Your task to perform on an android device: Clear the cart on amazon.com. Add "panasonic triple a" to the cart on amazon.com Image 0: 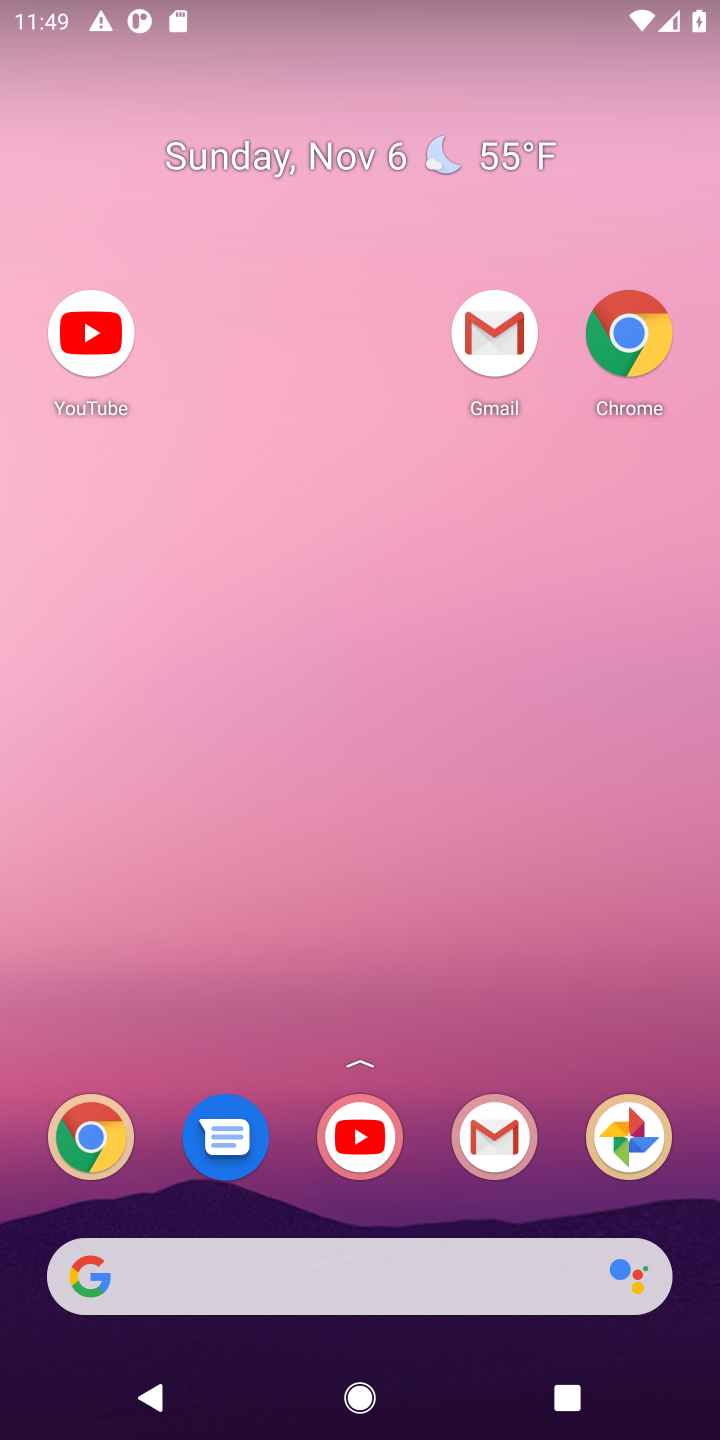
Step 0: drag from (460, 441) to (420, 178)
Your task to perform on an android device: Clear the cart on amazon.com. Add "panasonic triple a" to the cart on amazon.com Image 1: 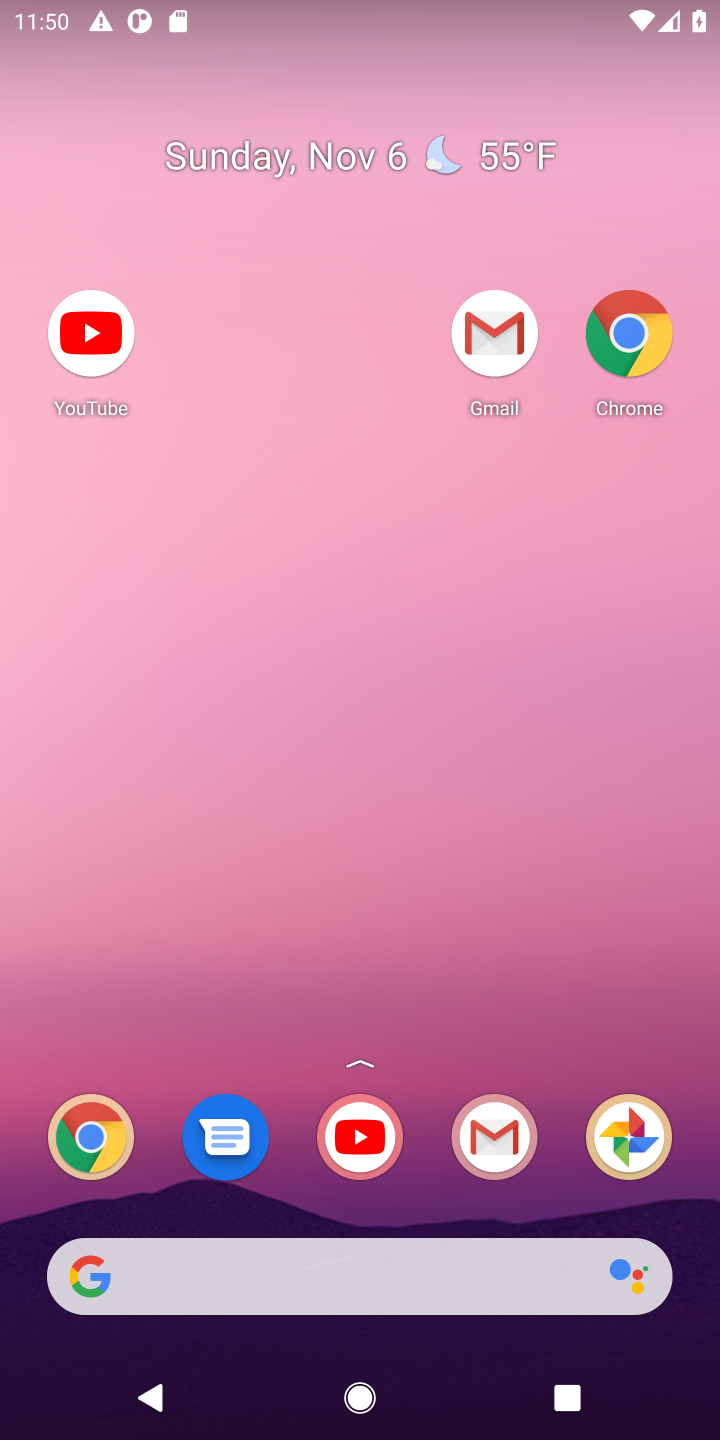
Step 1: drag from (234, 559) to (211, 97)
Your task to perform on an android device: Clear the cart on amazon.com. Add "panasonic triple a" to the cart on amazon.com Image 2: 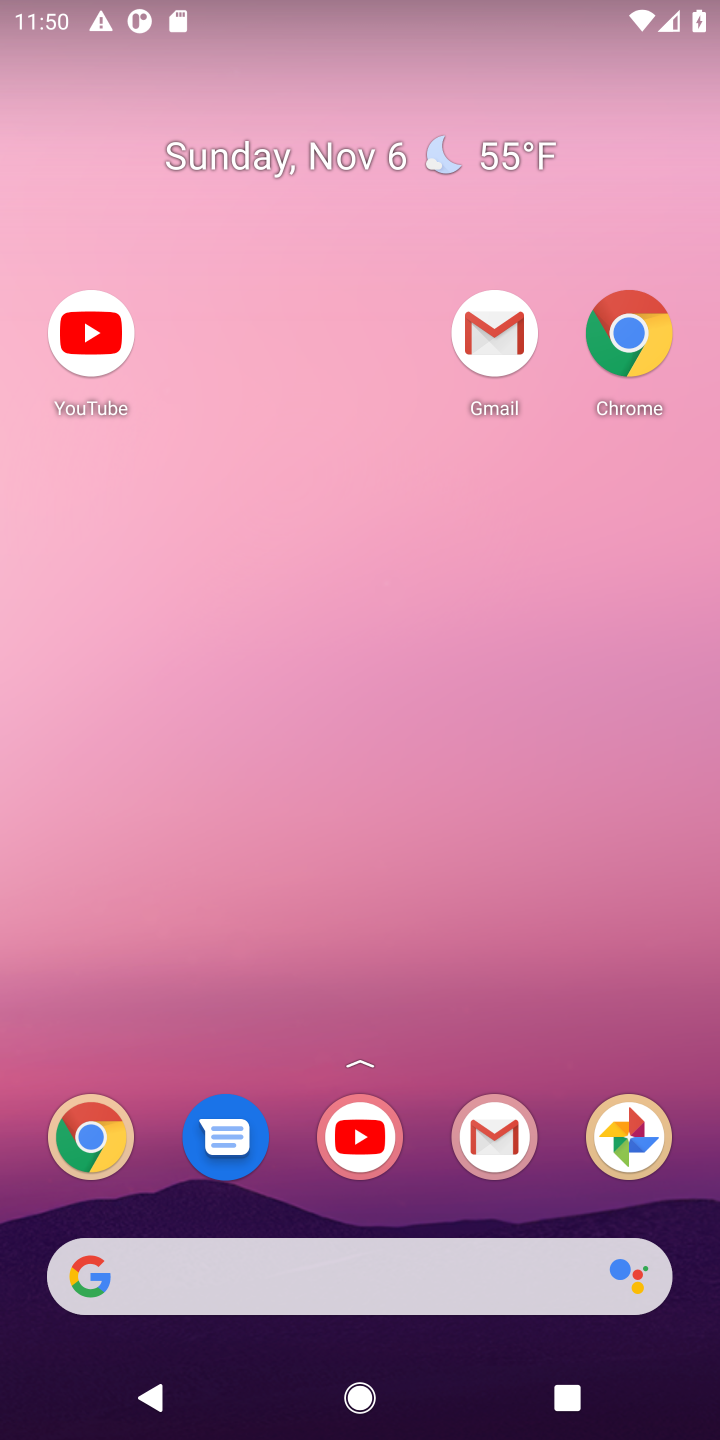
Step 2: drag from (441, 1222) to (380, 160)
Your task to perform on an android device: Clear the cart on amazon.com. Add "panasonic triple a" to the cart on amazon.com Image 3: 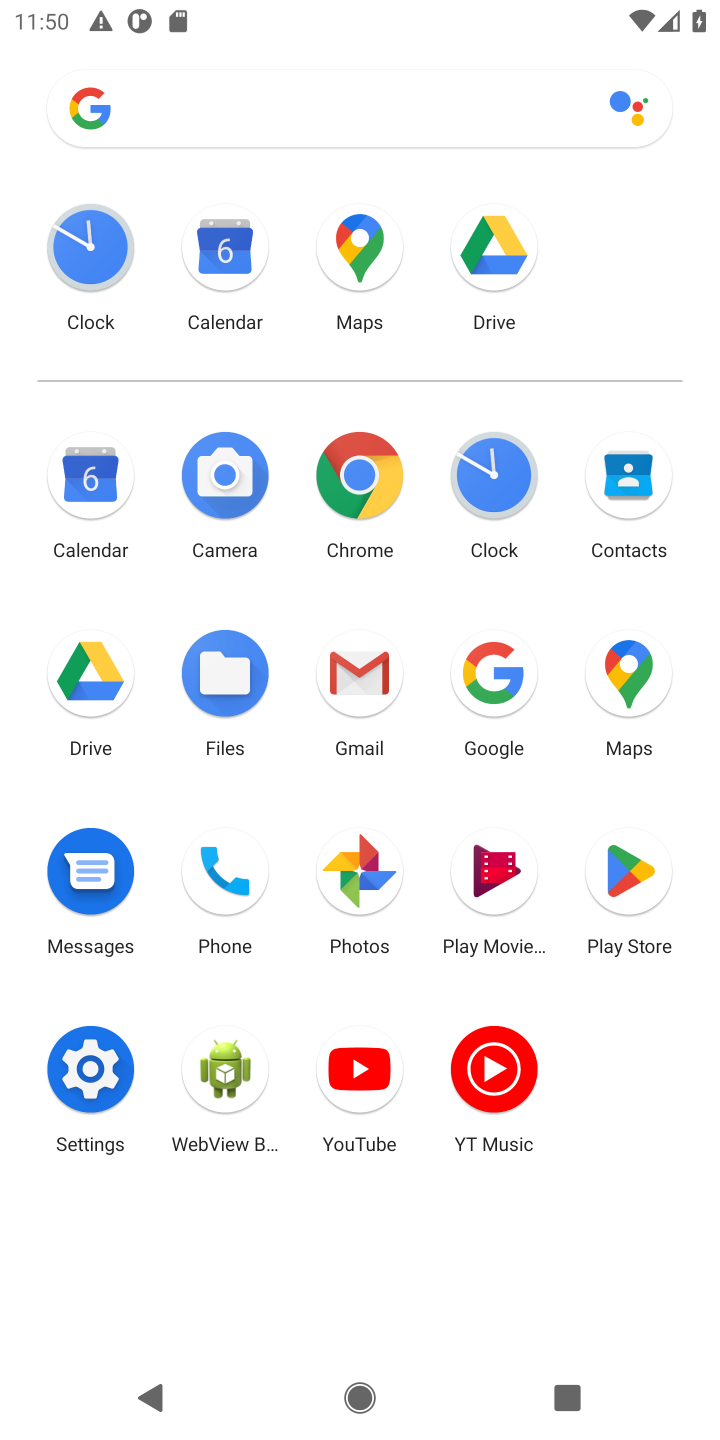
Step 3: click (361, 484)
Your task to perform on an android device: Clear the cart on amazon.com. Add "panasonic triple a" to the cart on amazon.com Image 4: 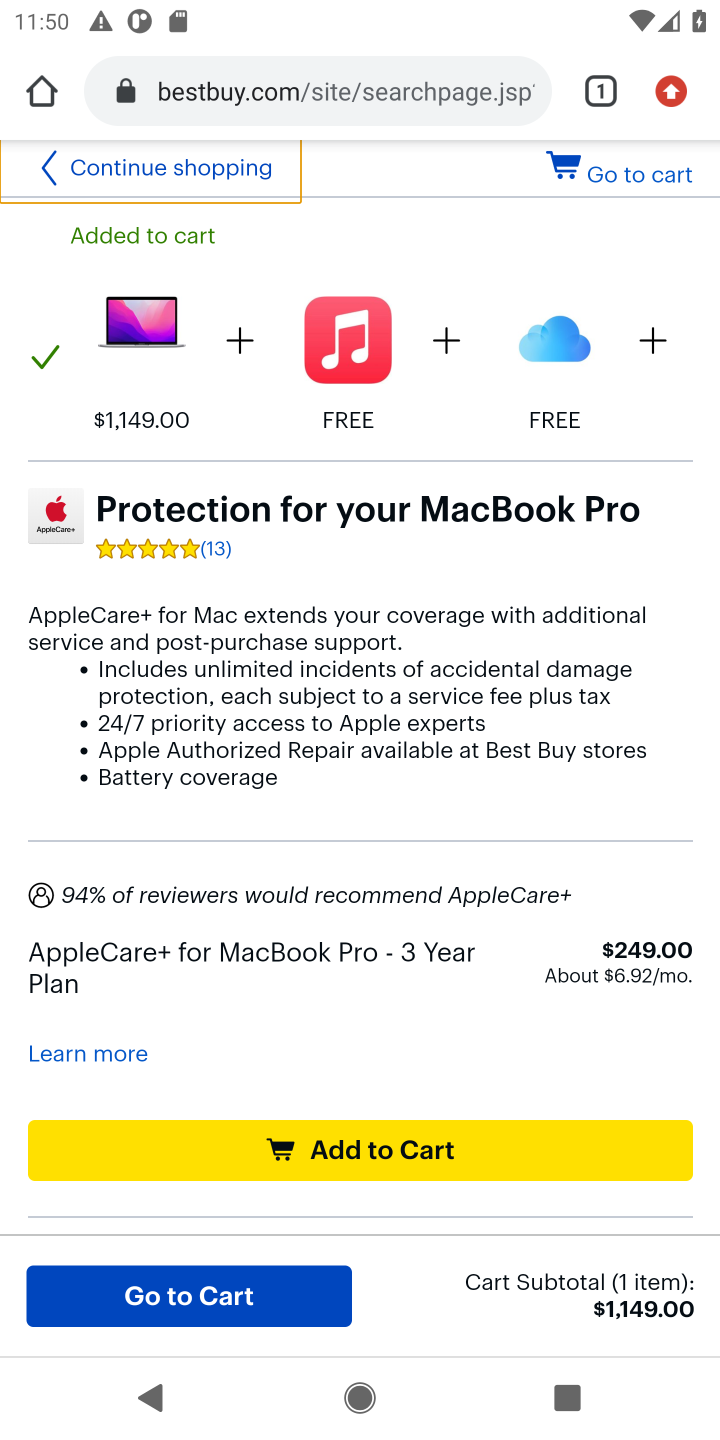
Step 4: click (399, 95)
Your task to perform on an android device: Clear the cart on amazon.com. Add "panasonic triple a" to the cart on amazon.com Image 5: 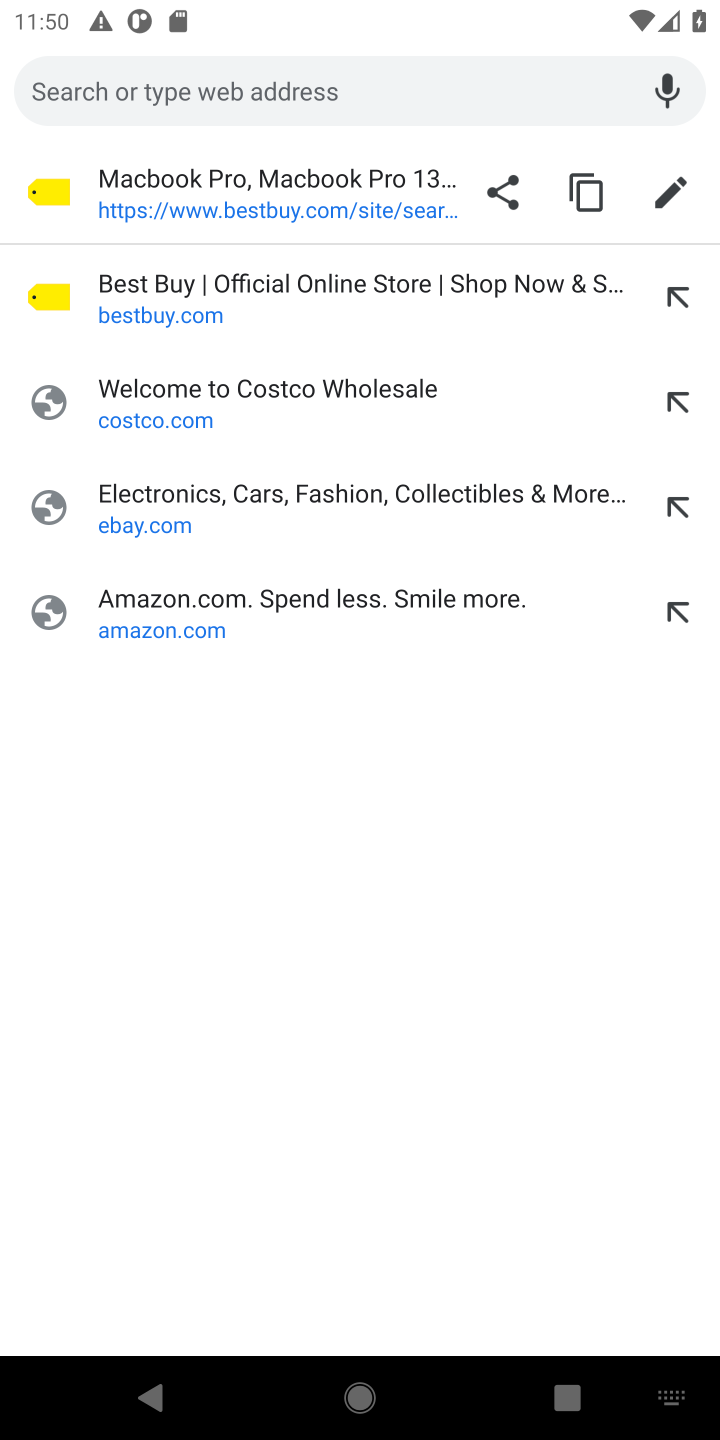
Step 5: type "amazon.com"
Your task to perform on an android device: Clear the cart on amazon.com. Add "panasonic triple a" to the cart on amazon.com Image 6: 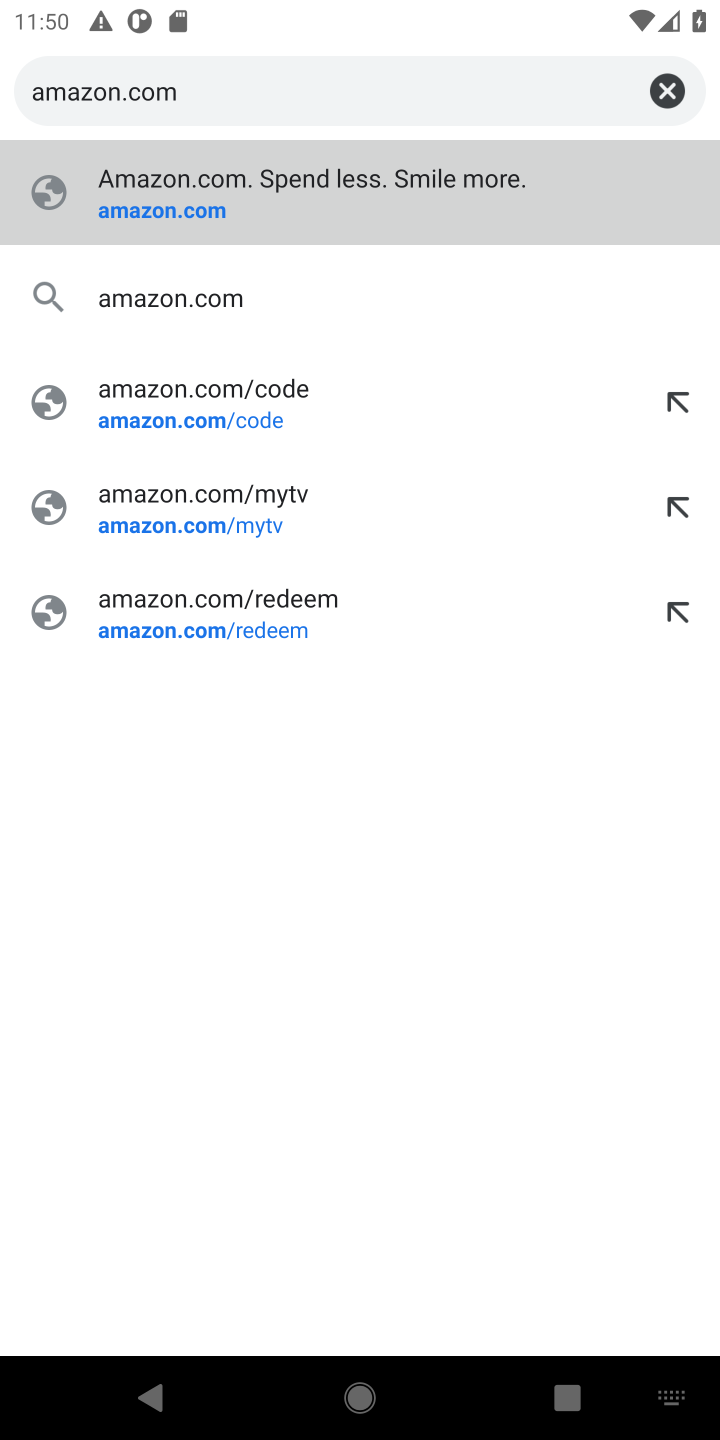
Step 6: press enter
Your task to perform on an android device: Clear the cart on amazon.com. Add "panasonic triple a" to the cart on amazon.com Image 7: 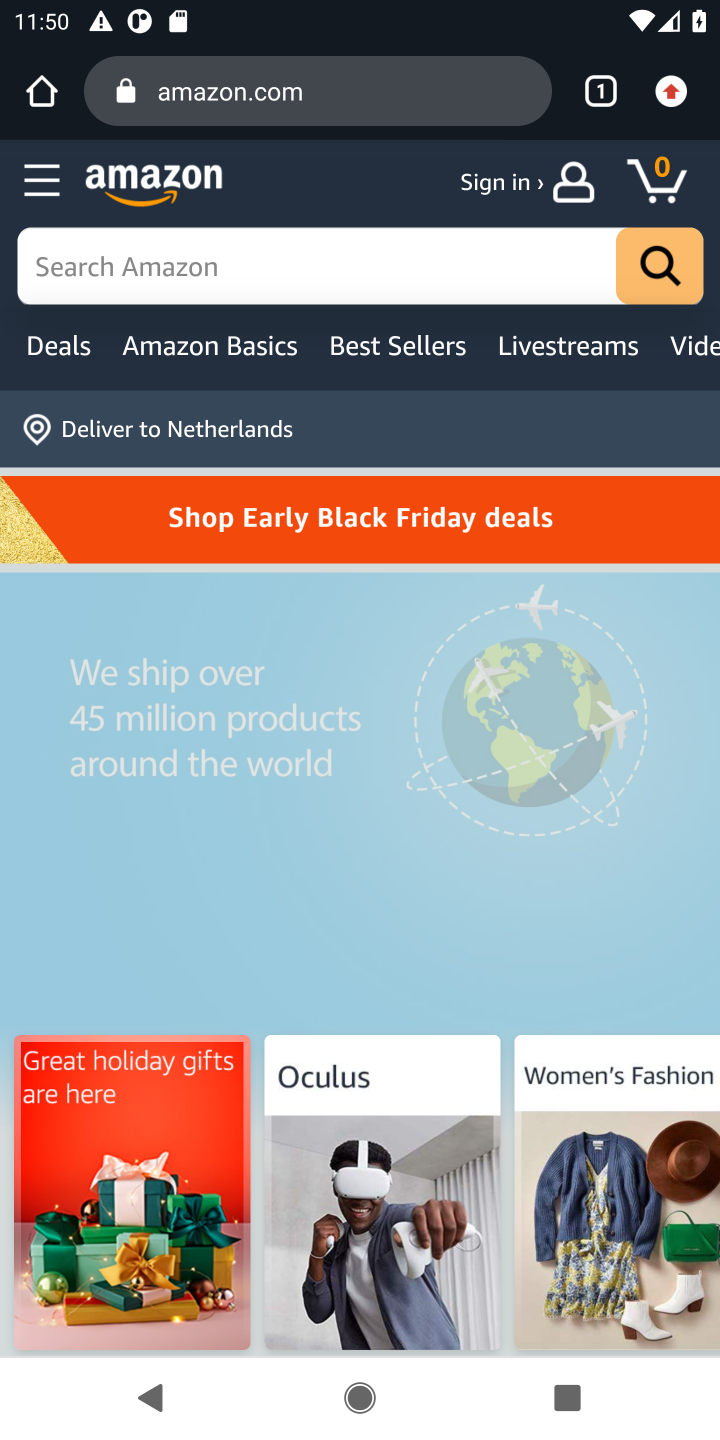
Step 7: click (648, 189)
Your task to perform on an android device: Clear the cart on amazon.com. Add "panasonic triple a" to the cart on amazon.com Image 8: 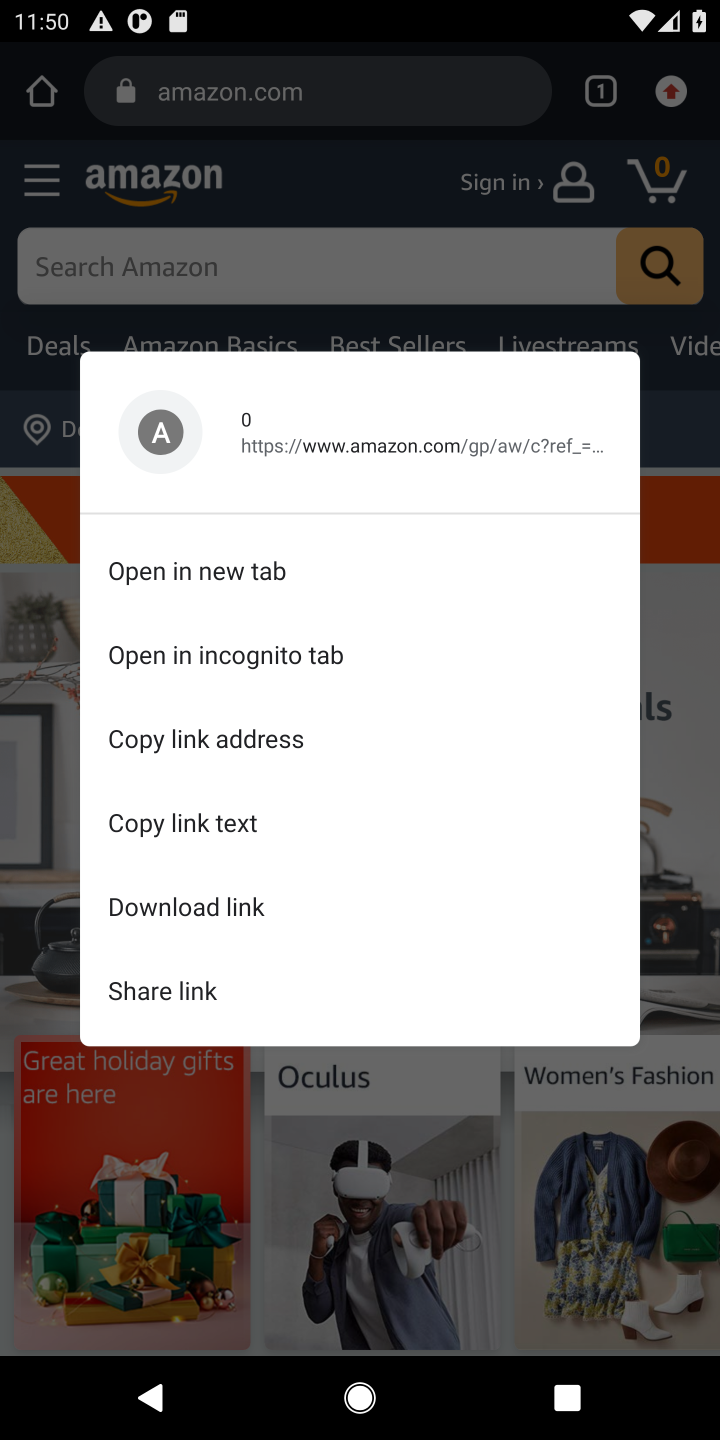
Step 8: click (645, 203)
Your task to perform on an android device: Clear the cart on amazon.com. Add "panasonic triple a" to the cart on amazon.com Image 9: 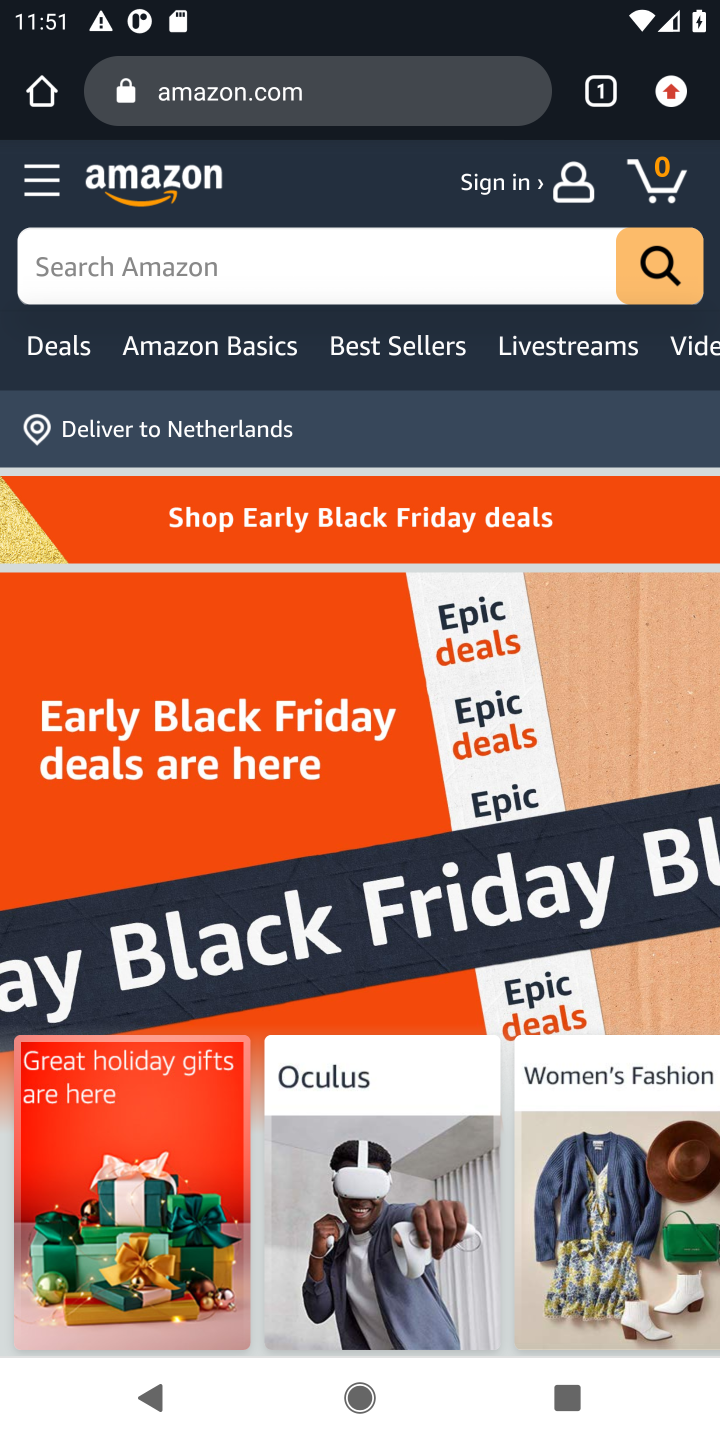
Step 9: click (661, 180)
Your task to perform on an android device: Clear the cart on amazon.com. Add "panasonic triple a" to the cart on amazon.com Image 10: 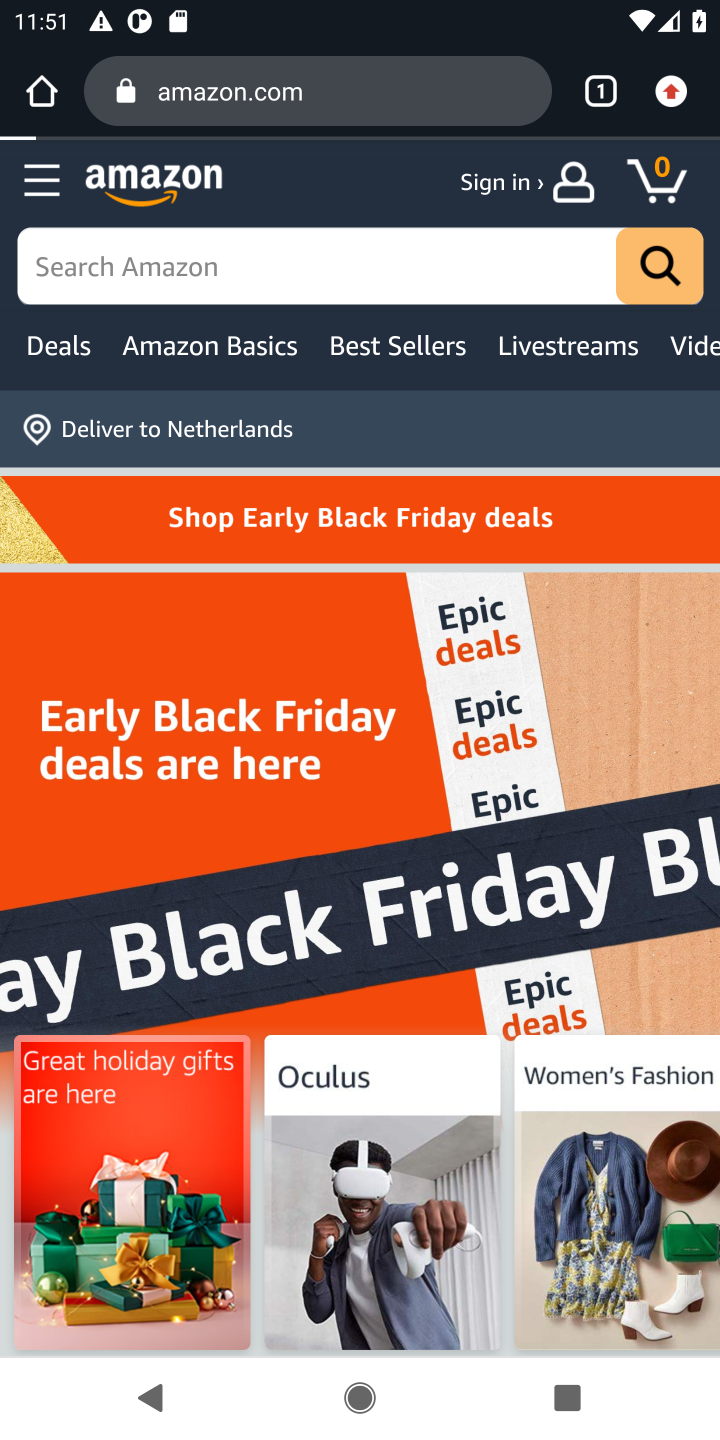
Step 10: click (661, 190)
Your task to perform on an android device: Clear the cart on amazon.com. Add "panasonic triple a" to the cart on amazon.com Image 11: 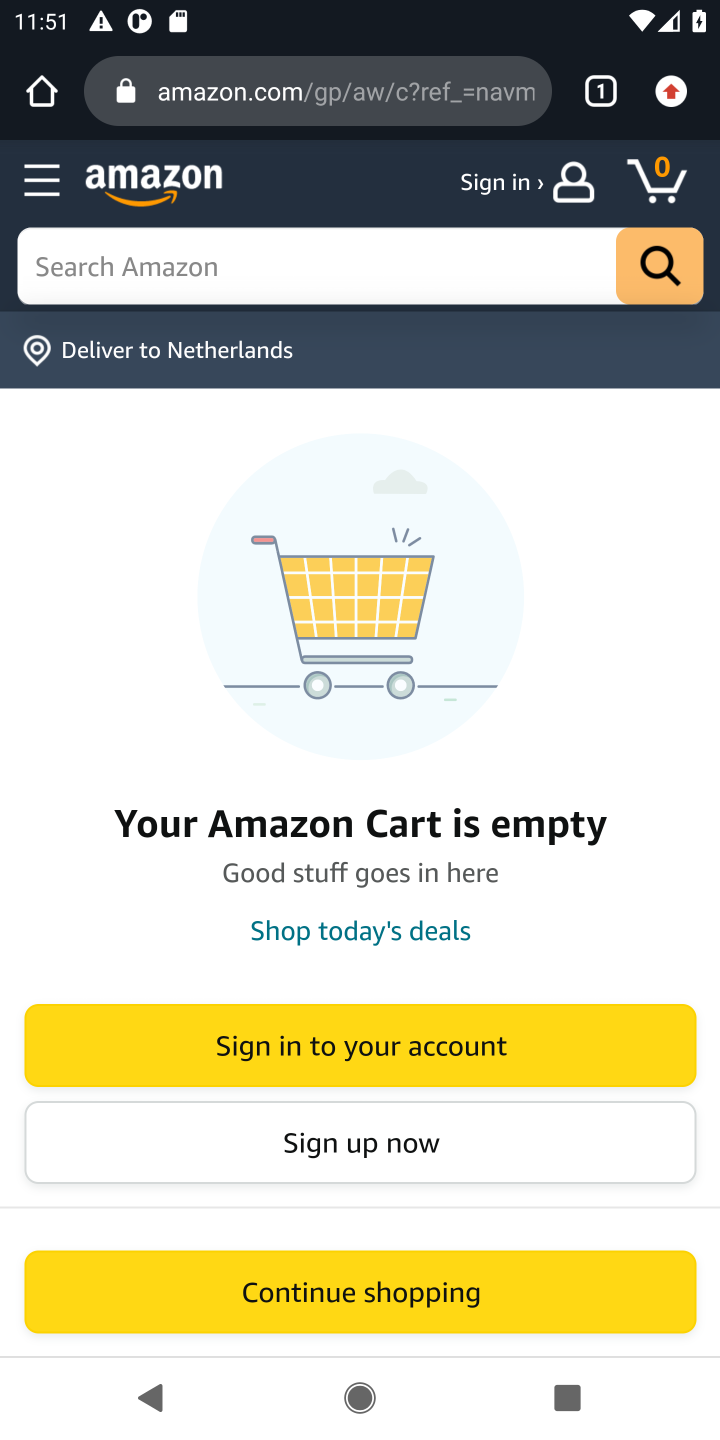
Step 11: click (492, 264)
Your task to perform on an android device: Clear the cart on amazon.com. Add "panasonic triple a" to the cart on amazon.com Image 12: 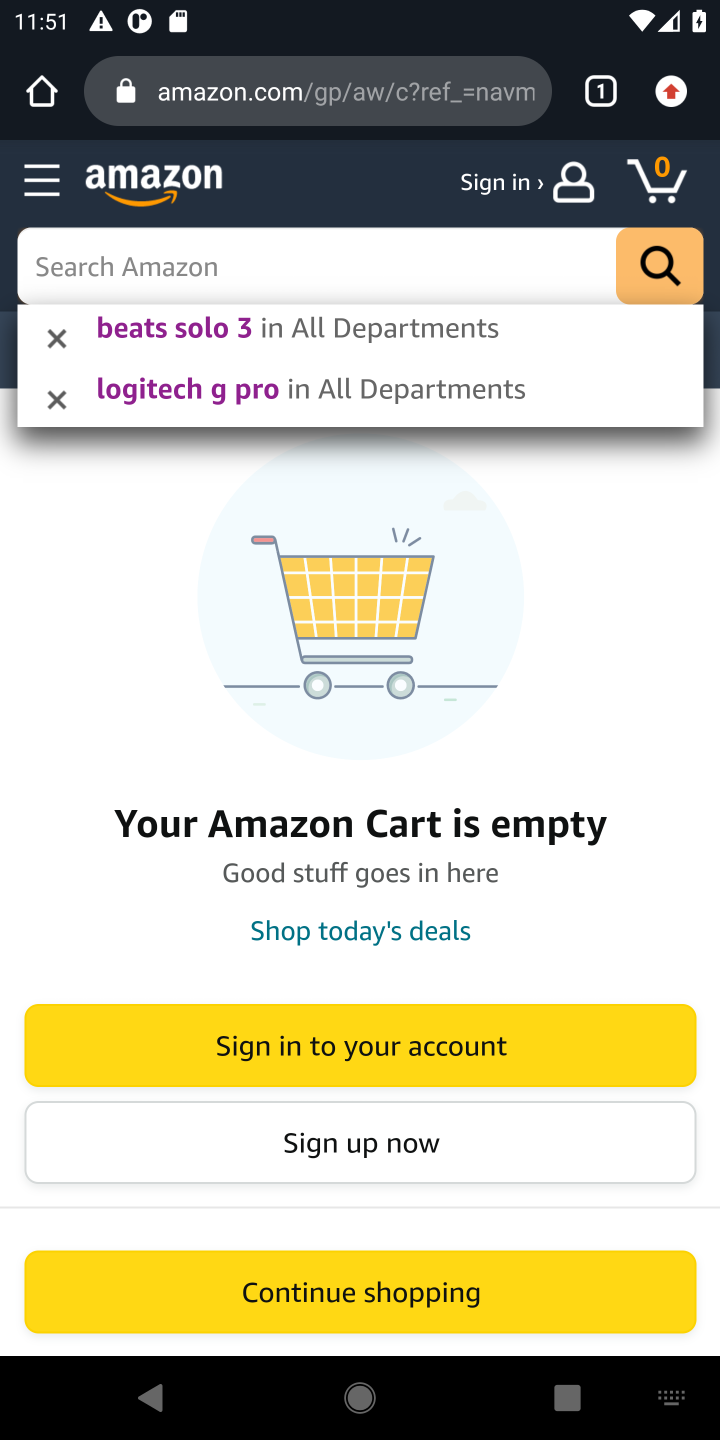
Step 12: type "panasonic triple a"
Your task to perform on an android device: Clear the cart on amazon.com. Add "panasonic triple a" to the cart on amazon.com Image 13: 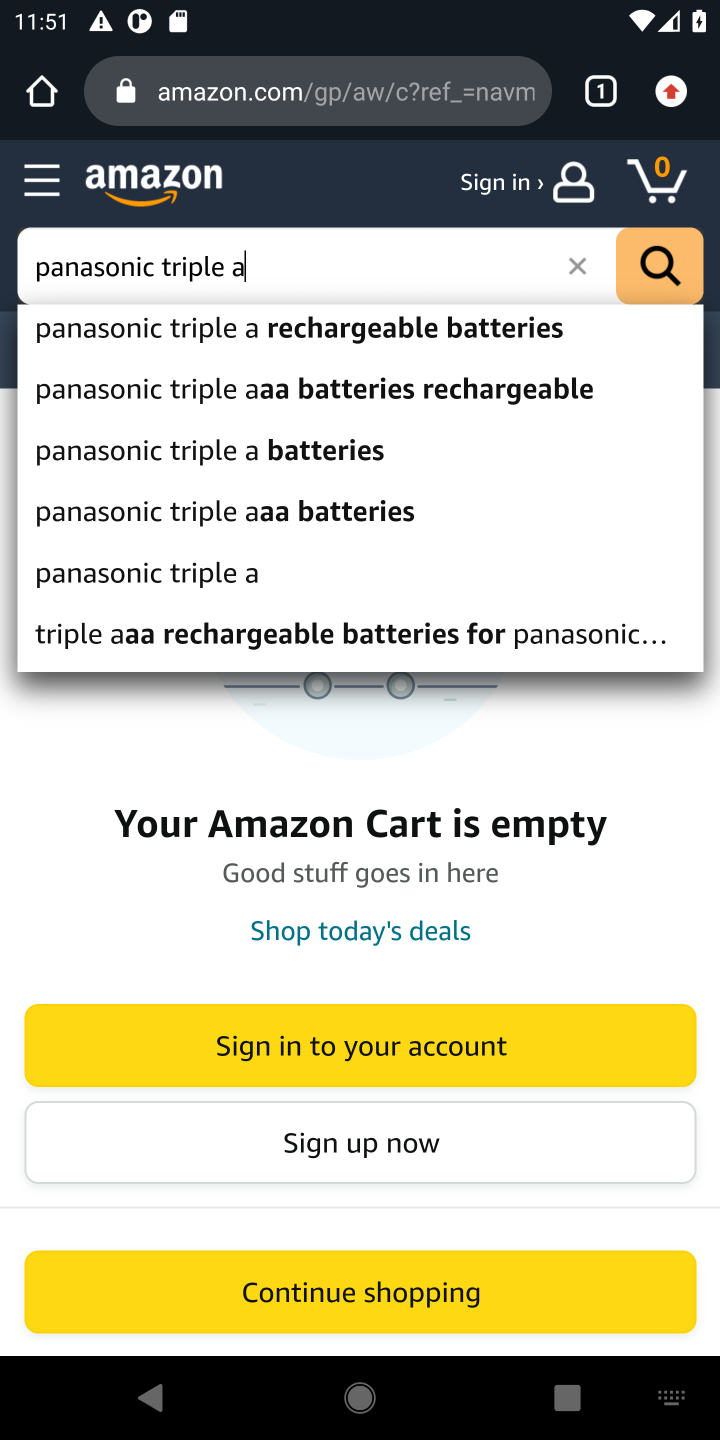
Step 13: press enter
Your task to perform on an android device: Clear the cart on amazon.com. Add "panasonic triple a" to the cart on amazon.com Image 14: 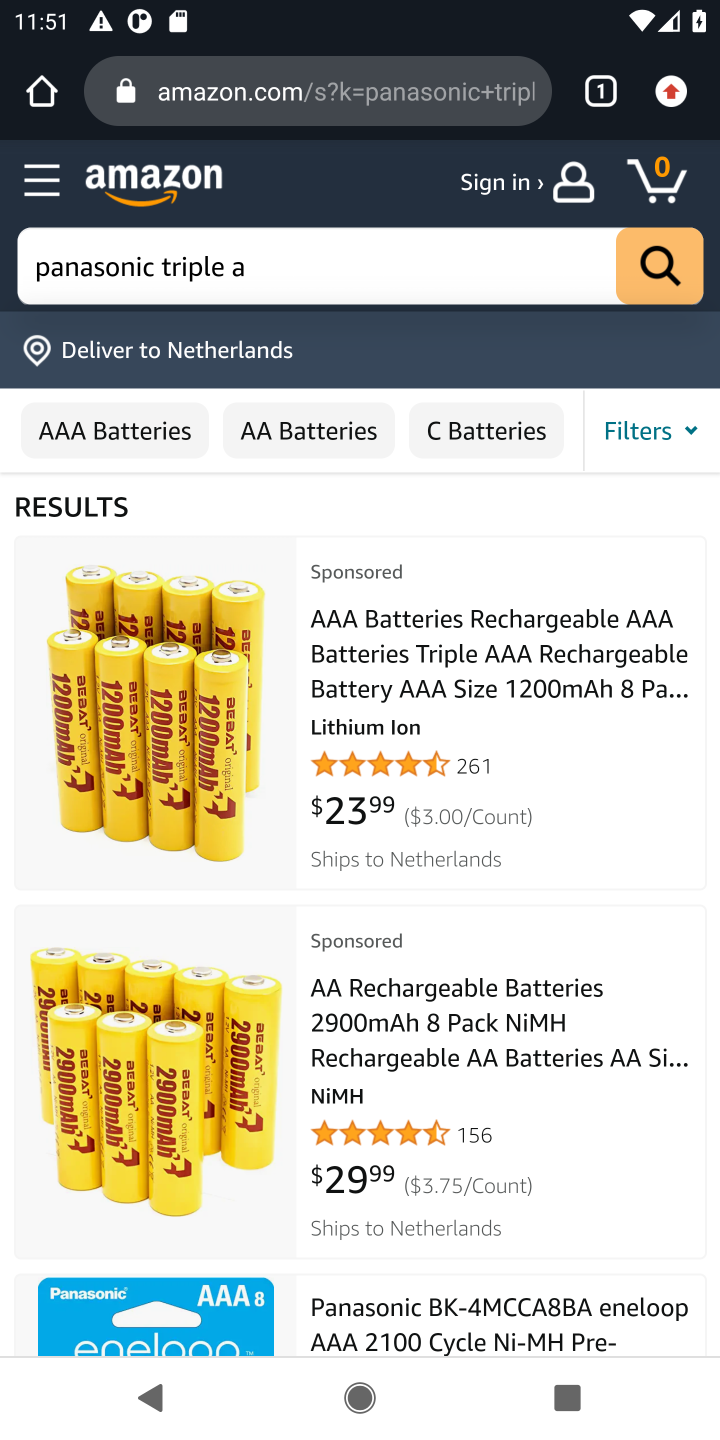
Step 14: drag from (565, 926) to (576, 513)
Your task to perform on an android device: Clear the cart on amazon.com. Add "panasonic triple a" to the cart on amazon.com Image 15: 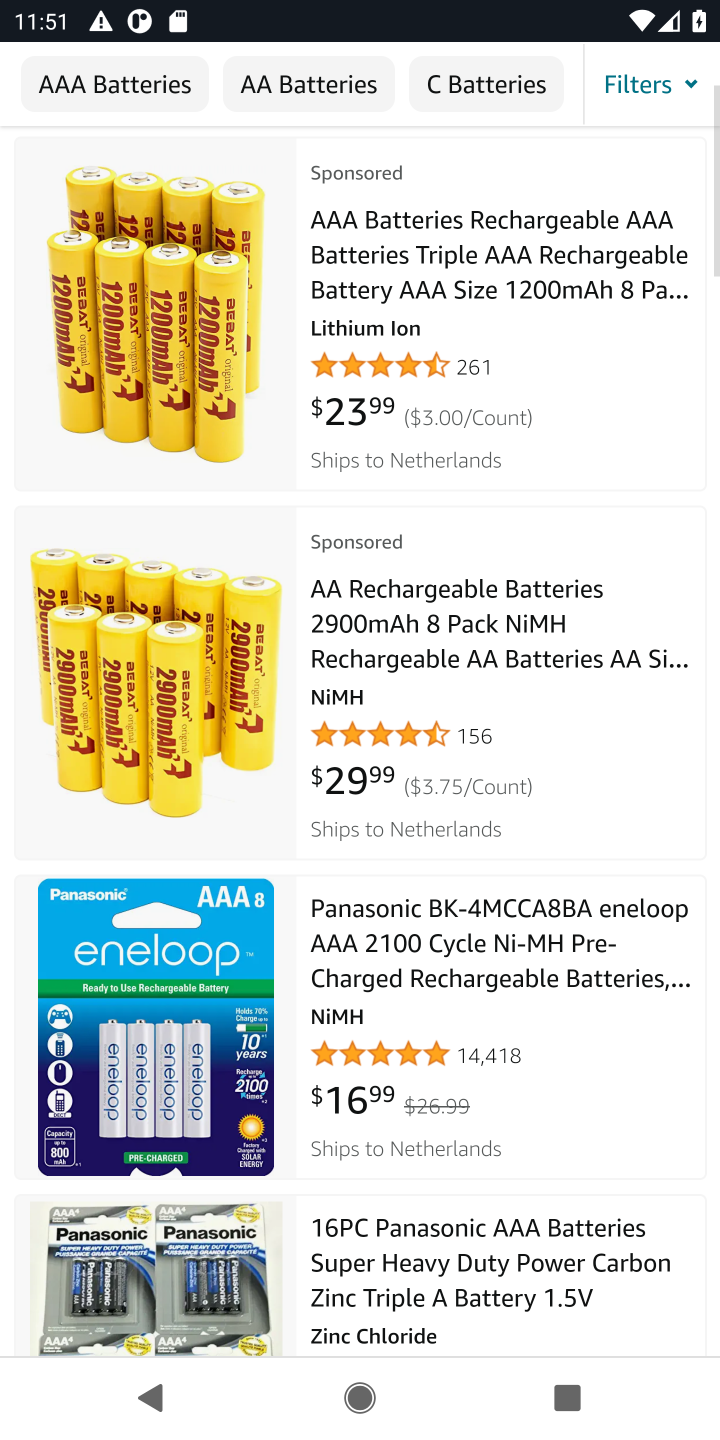
Step 15: click (432, 976)
Your task to perform on an android device: Clear the cart on amazon.com. Add "panasonic triple a" to the cart on amazon.com Image 16: 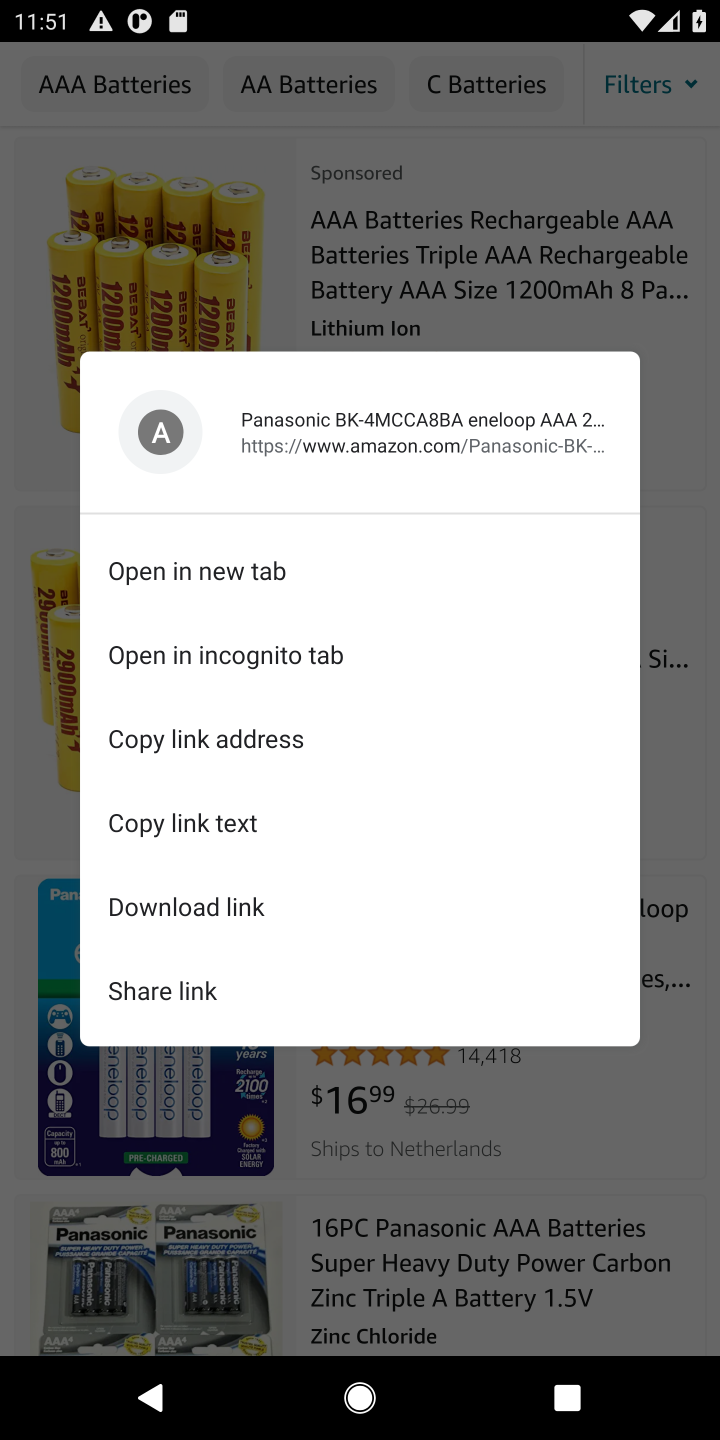
Step 16: click (82, 1075)
Your task to perform on an android device: Clear the cart on amazon.com. Add "panasonic triple a" to the cart on amazon.com Image 17: 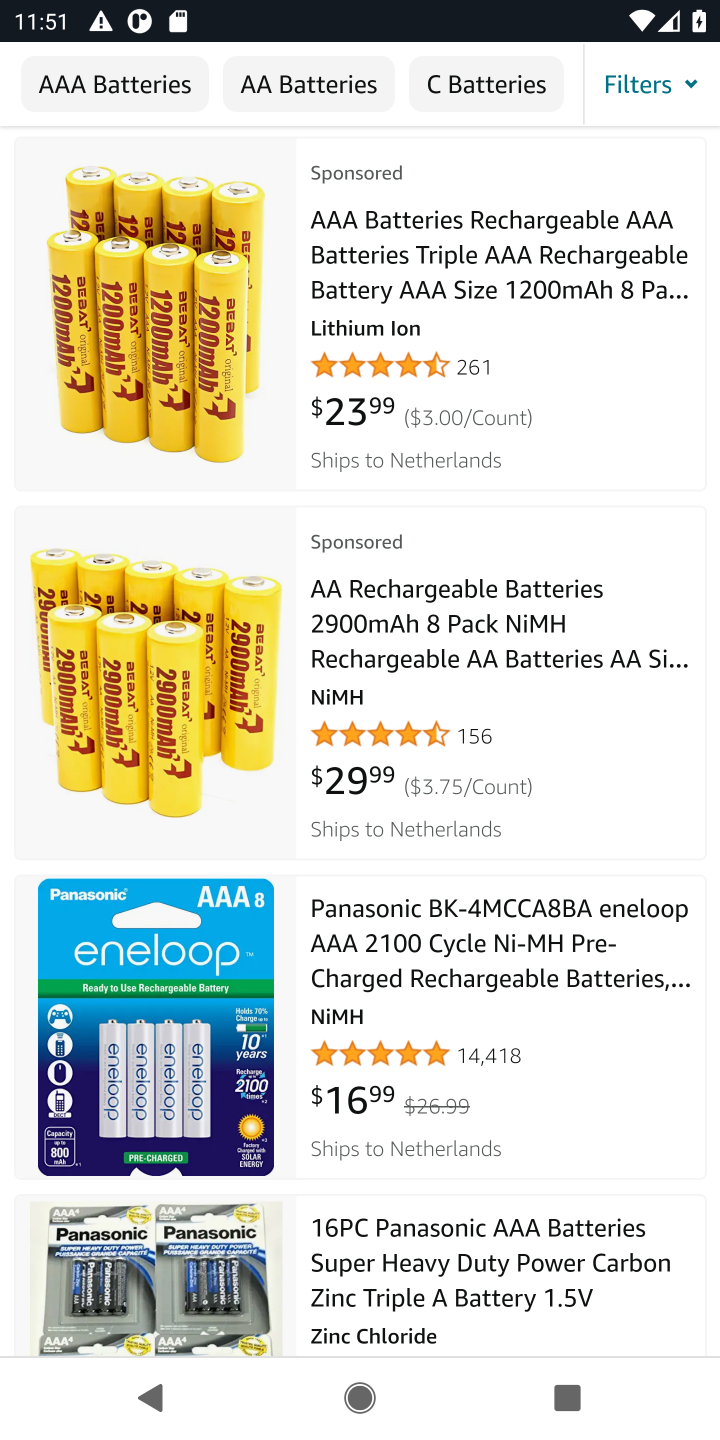
Step 17: click (372, 941)
Your task to perform on an android device: Clear the cart on amazon.com. Add "panasonic triple a" to the cart on amazon.com Image 18: 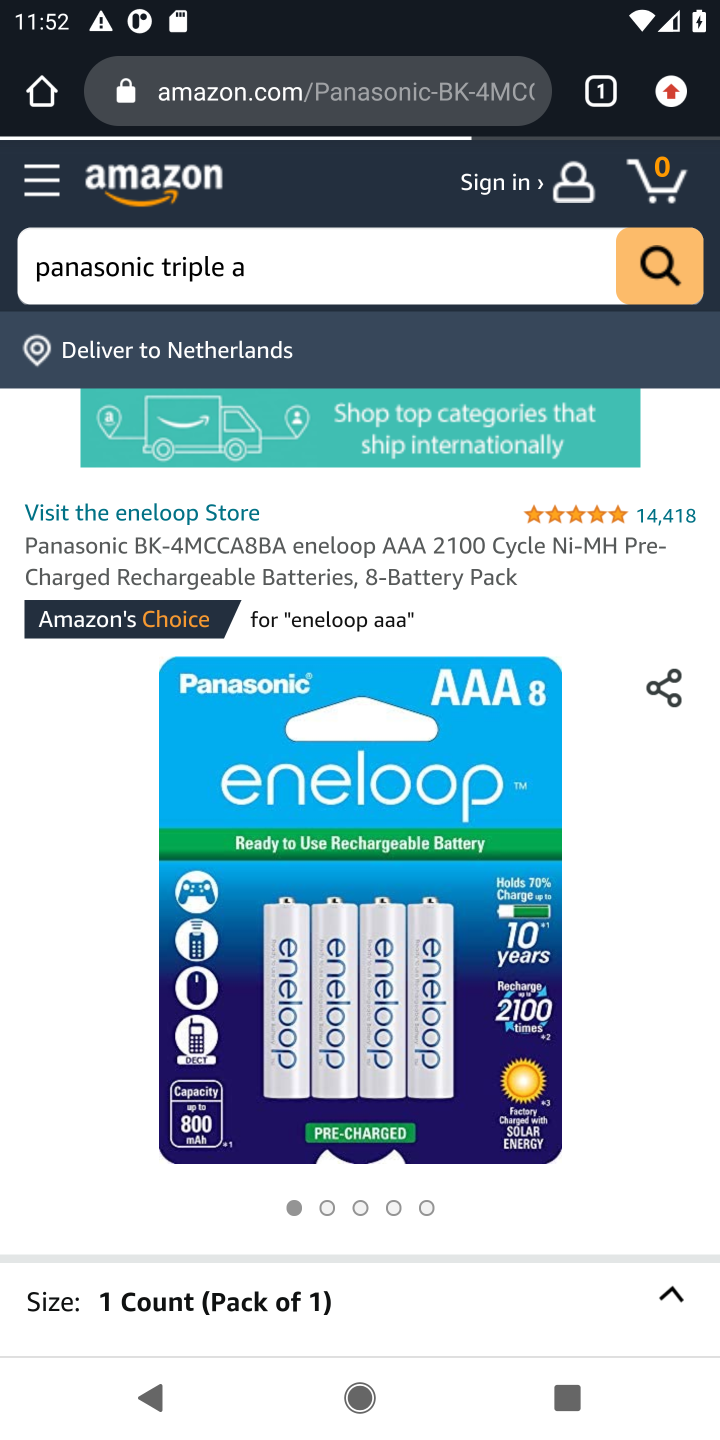
Step 18: drag from (362, 1059) to (340, 406)
Your task to perform on an android device: Clear the cart on amazon.com. Add "panasonic triple a" to the cart on amazon.com Image 19: 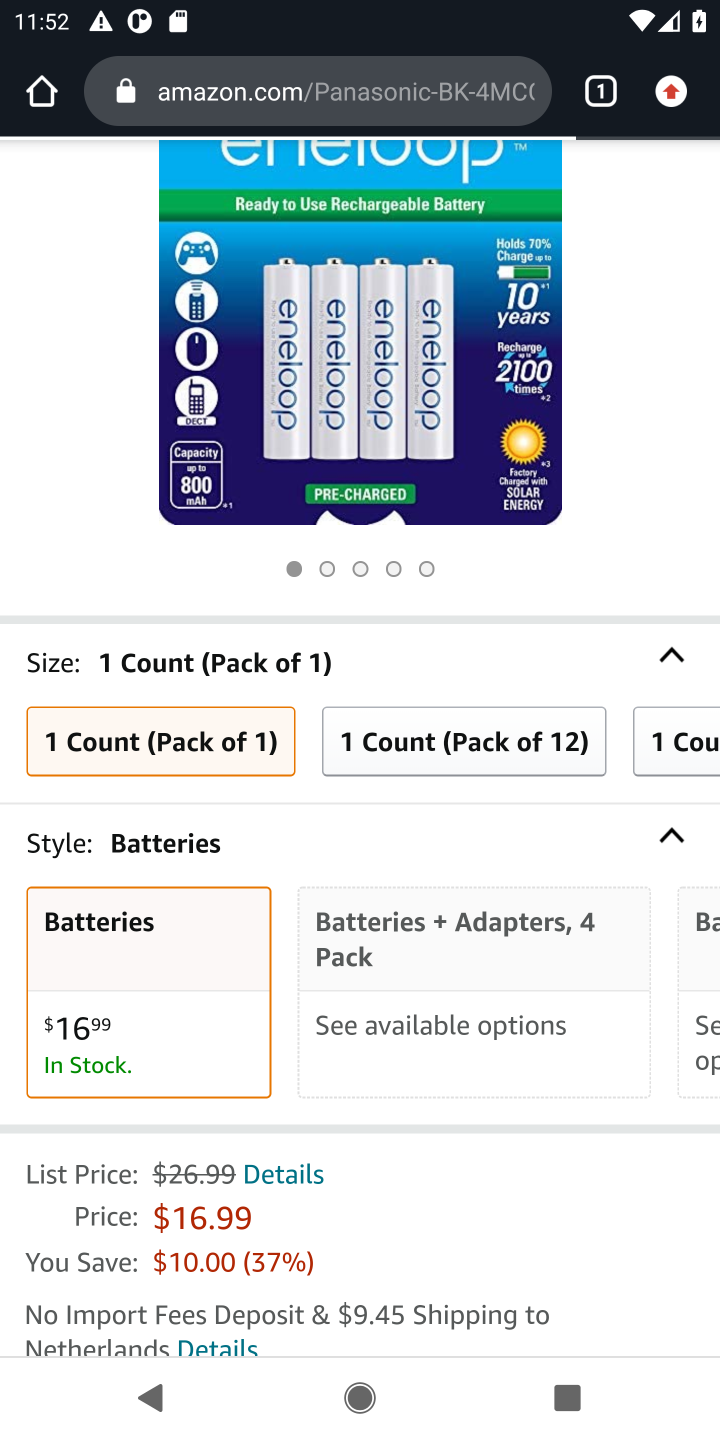
Step 19: drag from (513, 1161) to (414, 159)
Your task to perform on an android device: Clear the cart on amazon.com. Add "panasonic triple a" to the cart on amazon.com Image 20: 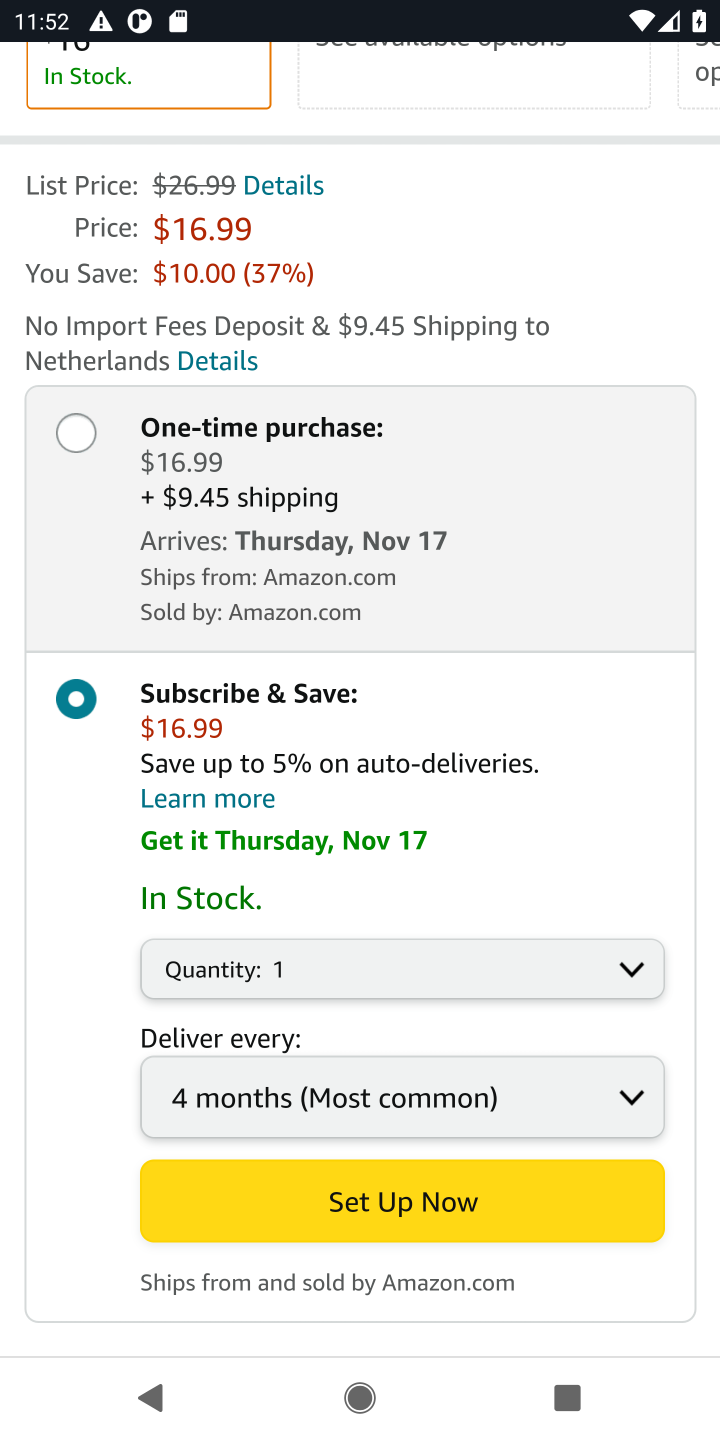
Step 20: click (210, 421)
Your task to perform on an android device: Clear the cart on amazon.com. Add "panasonic triple a" to the cart on amazon.com Image 21: 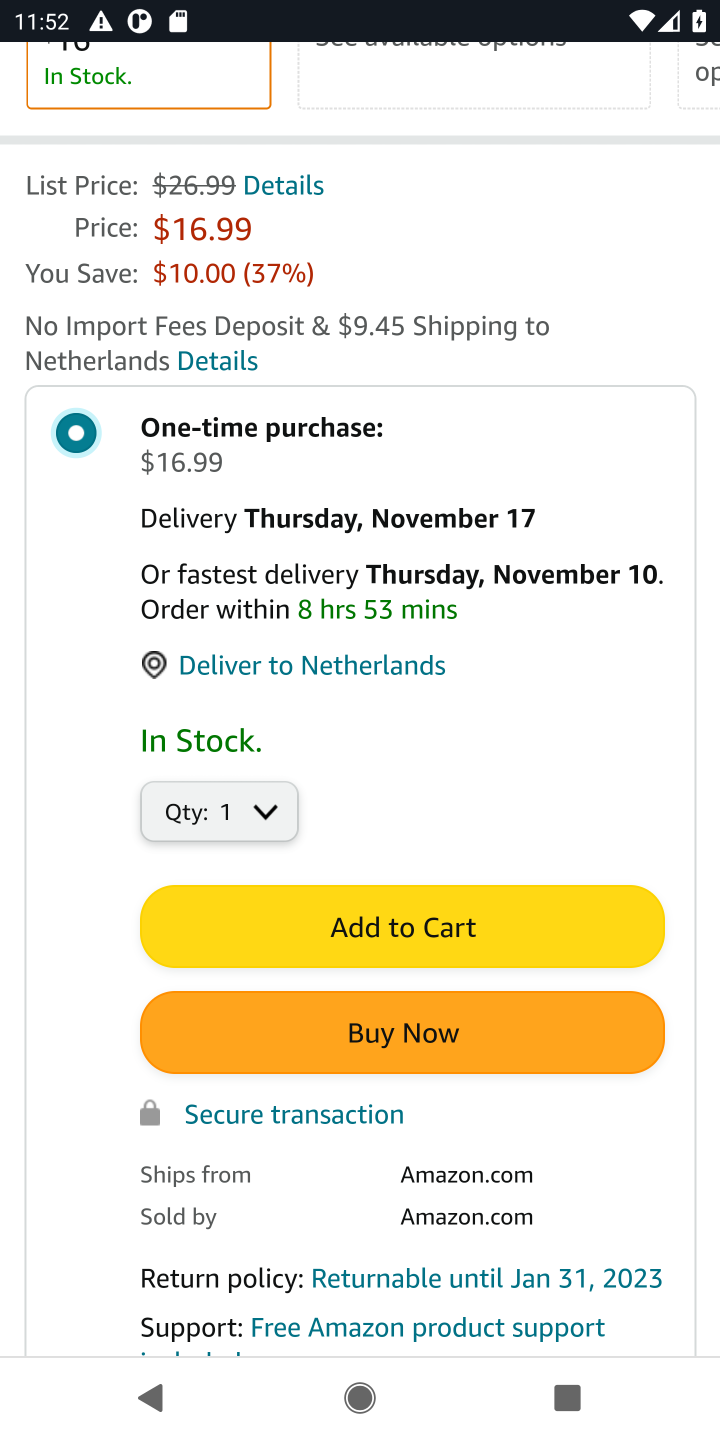
Step 21: click (395, 912)
Your task to perform on an android device: Clear the cart on amazon.com. Add "panasonic triple a" to the cart on amazon.com Image 22: 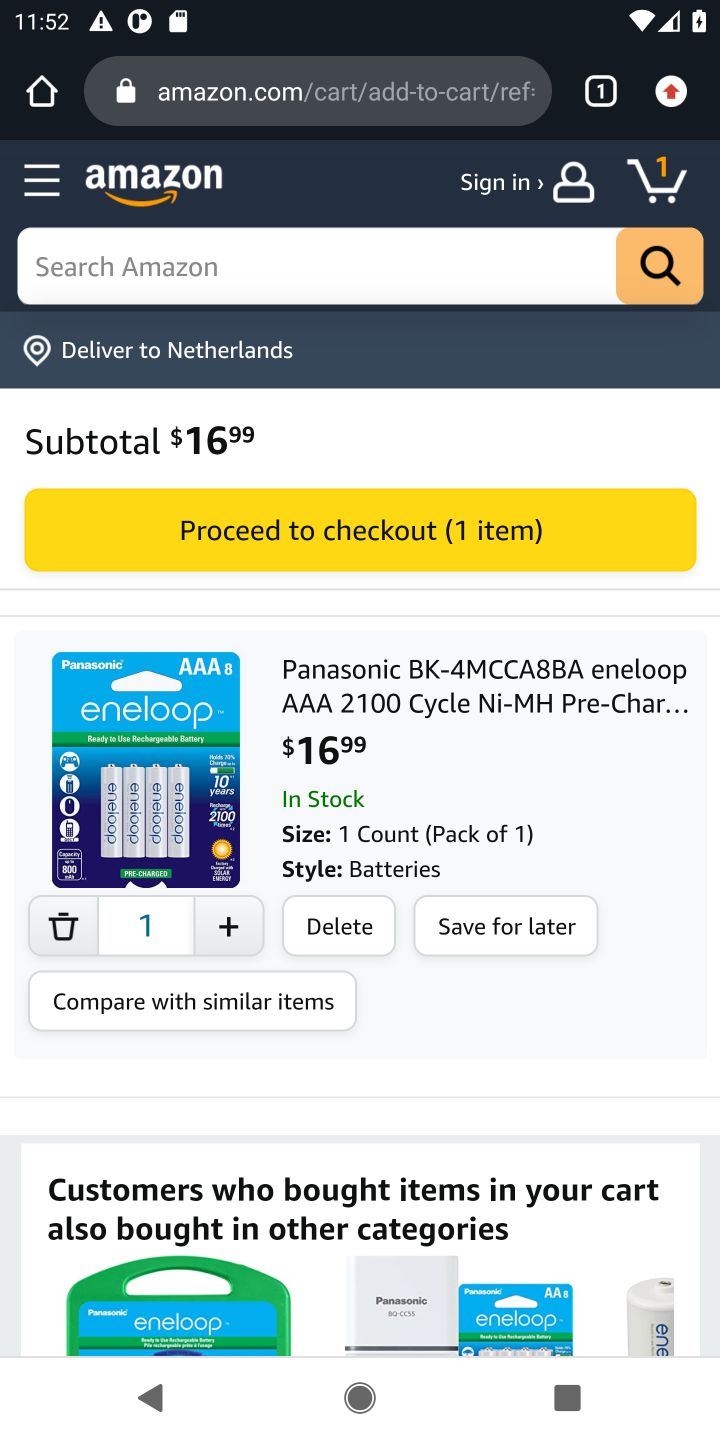
Step 22: task complete